Your task to perform on an android device: turn on sleep mode Image 0: 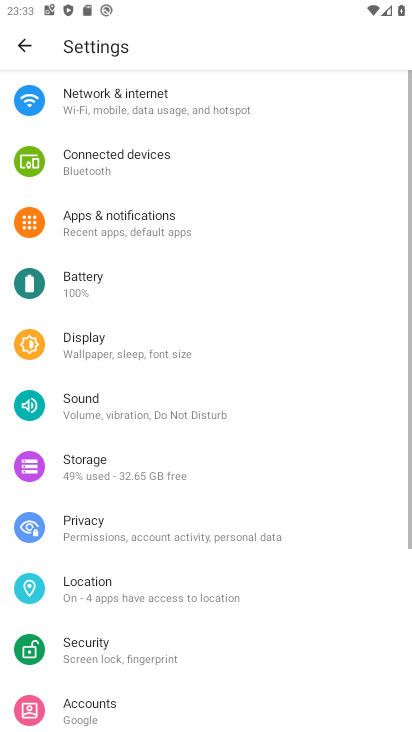
Step 0: press home button
Your task to perform on an android device: turn on sleep mode Image 1: 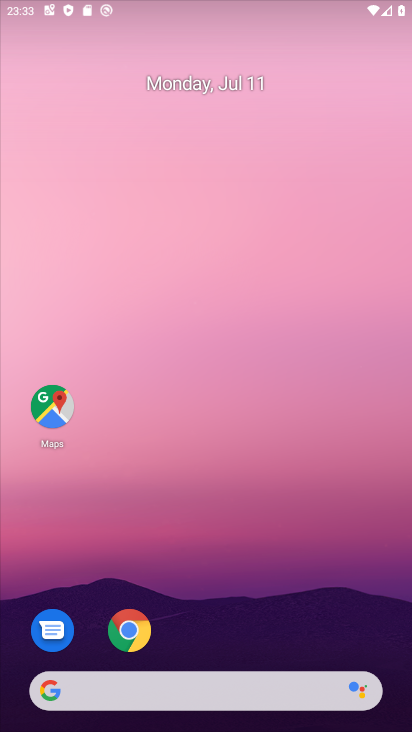
Step 1: drag from (211, 644) to (245, 89)
Your task to perform on an android device: turn on sleep mode Image 2: 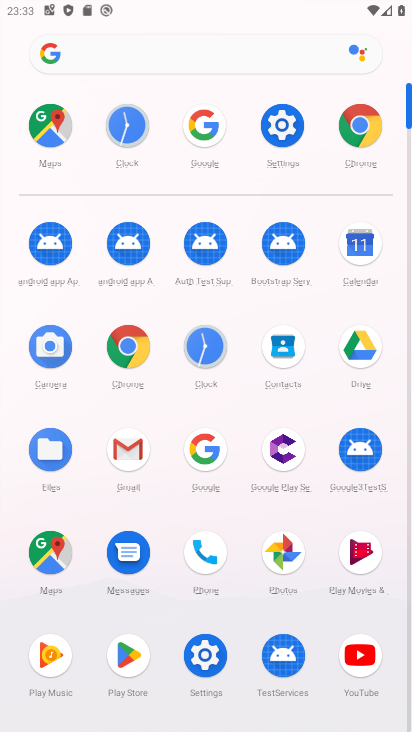
Step 2: click (286, 119)
Your task to perform on an android device: turn on sleep mode Image 3: 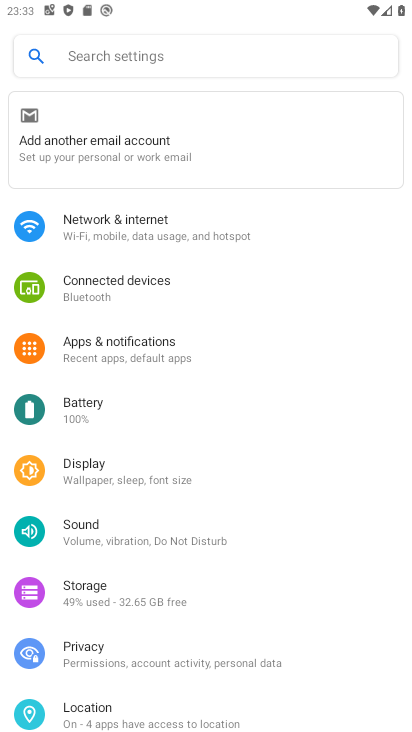
Step 3: click (123, 468)
Your task to perform on an android device: turn on sleep mode Image 4: 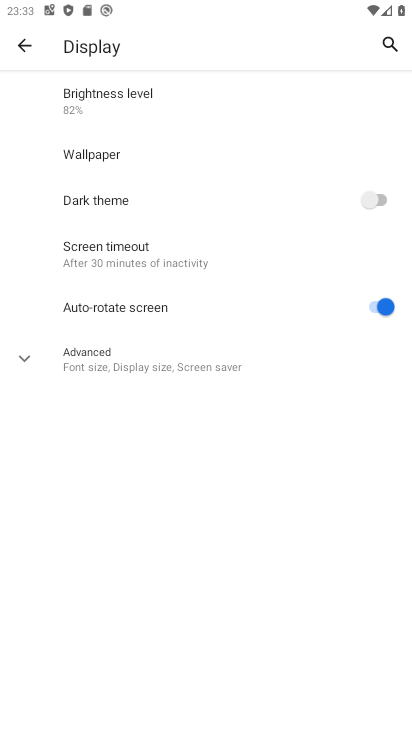
Step 4: click (135, 251)
Your task to perform on an android device: turn on sleep mode Image 5: 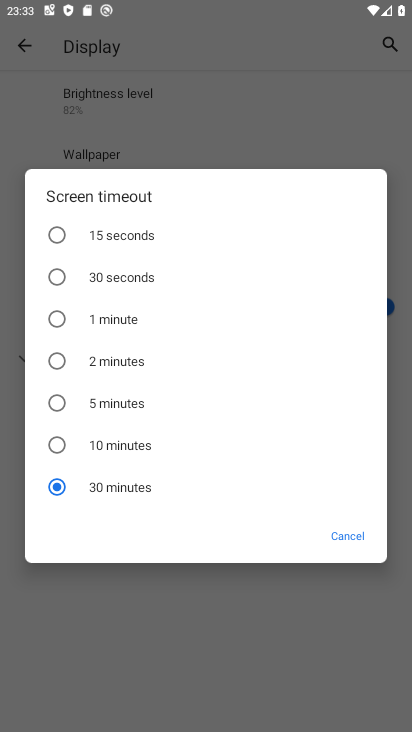
Step 5: task complete